Your task to perform on an android device: Open the Play Movies app and select the watchlist tab. Image 0: 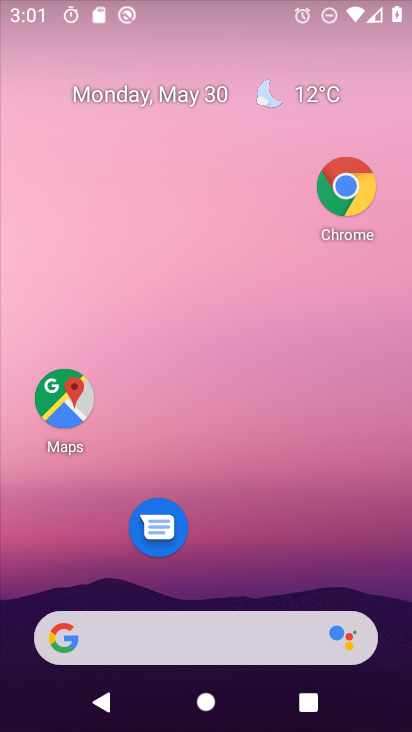
Step 0: drag from (234, 590) to (230, 516)
Your task to perform on an android device: Open the Play Movies app and select the watchlist tab. Image 1: 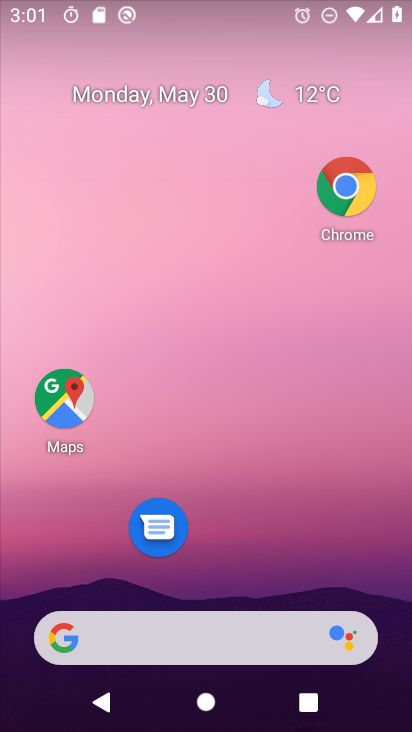
Step 1: drag from (258, 608) to (262, 12)
Your task to perform on an android device: Open the Play Movies app and select the watchlist tab. Image 2: 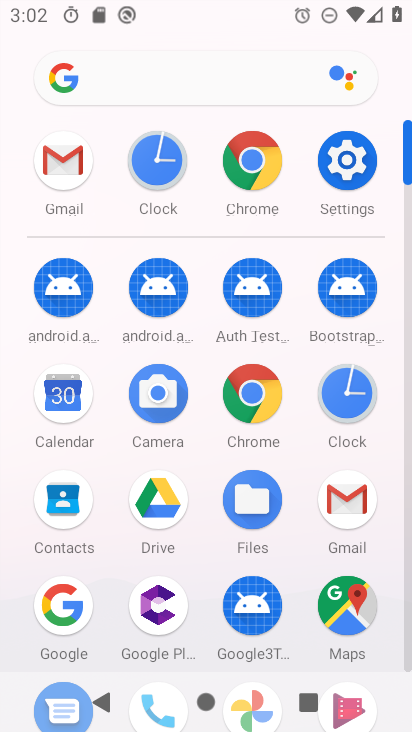
Step 2: drag from (293, 535) to (303, 106)
Your task to perform on an android device: Open the Play Movies app and select the watchlist tab. Image 3: 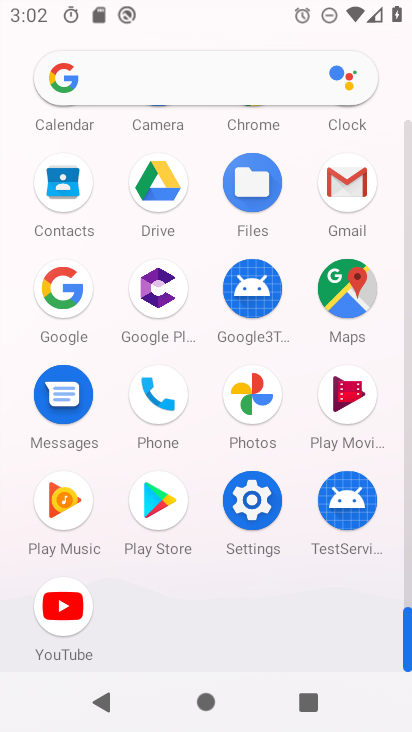
Step 3: click (338, 384)
Your task to perform on an android device: Open the Play Movies app and select the watchlist tab. Image 4: 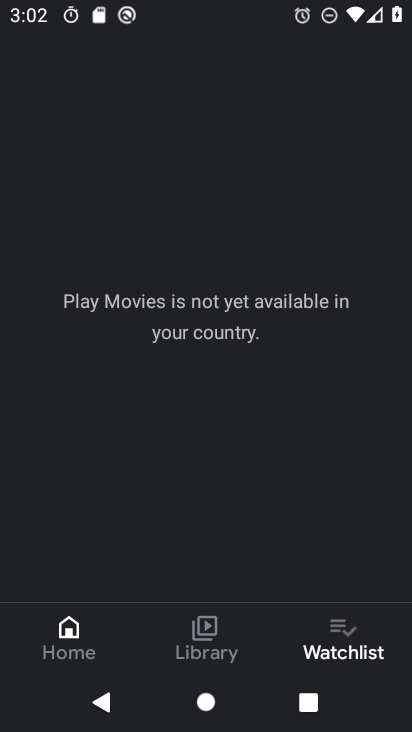
Step 4: task complete